Your task to perform on an android device: turn off location Image 0: 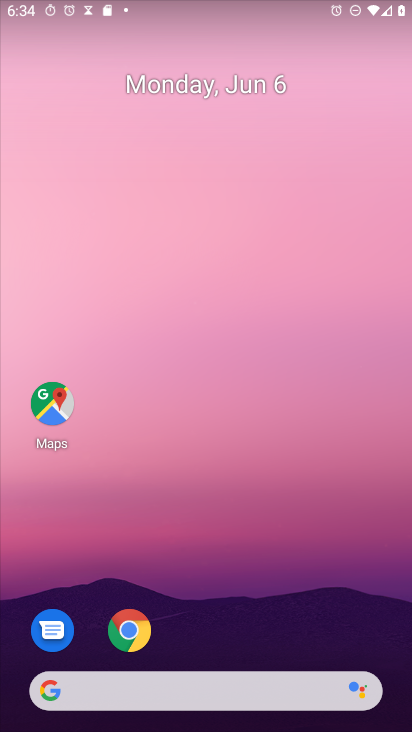
Step 0: drag from (347, 635) to (202, 17)
Your task to perform on an android device: turn off location Image 1: 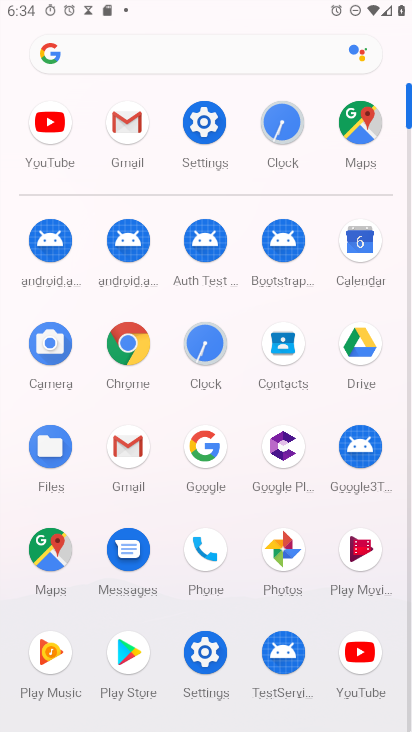
Step 1: click (214, 125)
Your task to perform on an android device: turn off location Image 2: 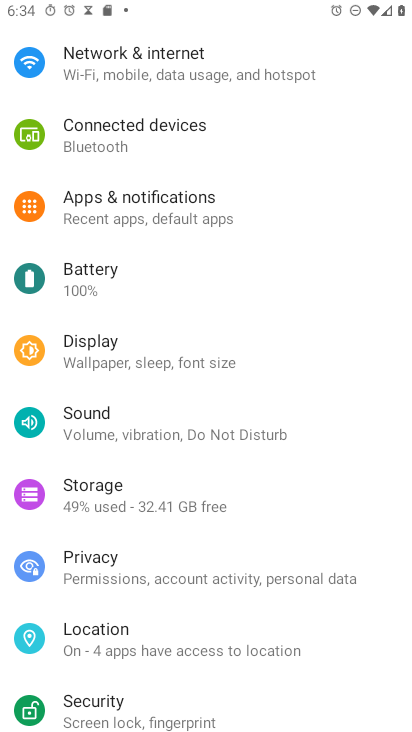
Step 2: click (158, 653)
Your task to perform on an android device: turn off location Image 3: 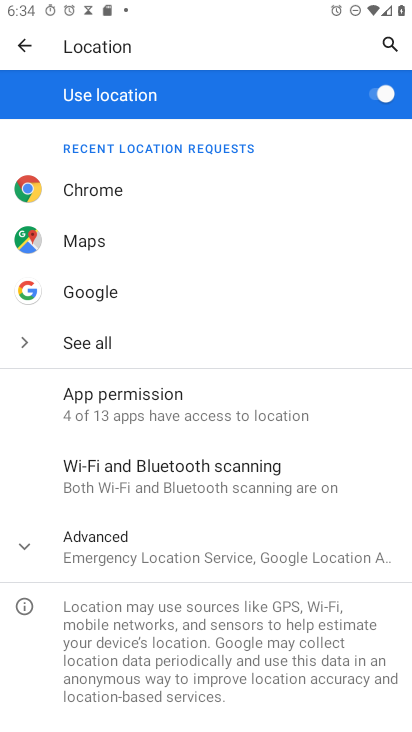
Step 3: click (371, 100)
Your task to perform on an android device: turn off location Image 4: 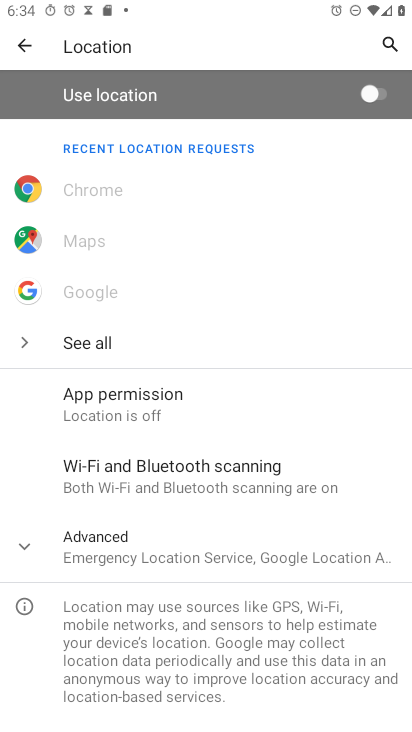
Step 4: task complete